Your task to perform on an android device: change text size in settings app Image 0: 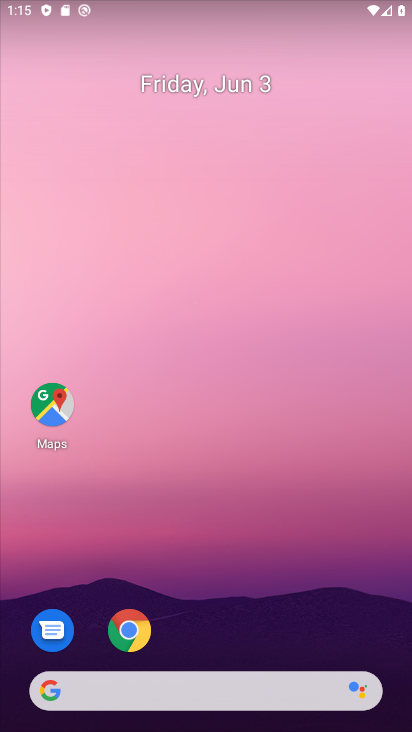
Step 0: drag from (236, 650) to (207, 124)
Your task to perform on an android device: change text size in settings app Image 1: 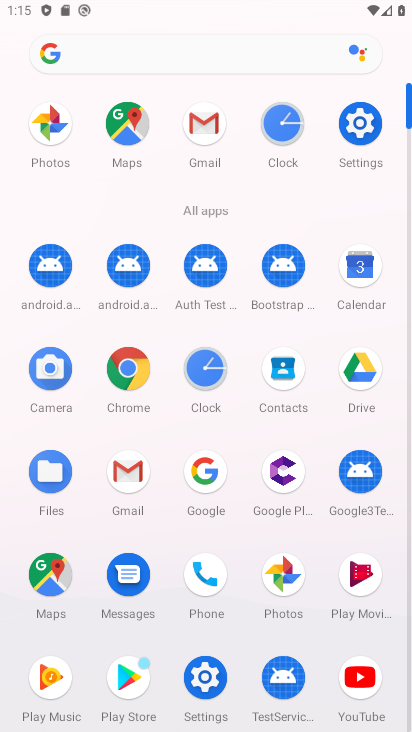
Step 1: click (355, 131)
Your task to perform on an android device: change text size in settings app Image 2: 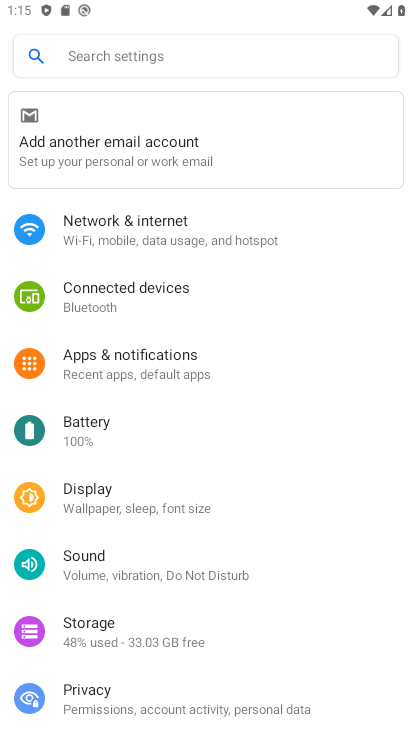
Step 2: click (224, 510)
Your task to perform on an android device: change text size in settings app Image 3: 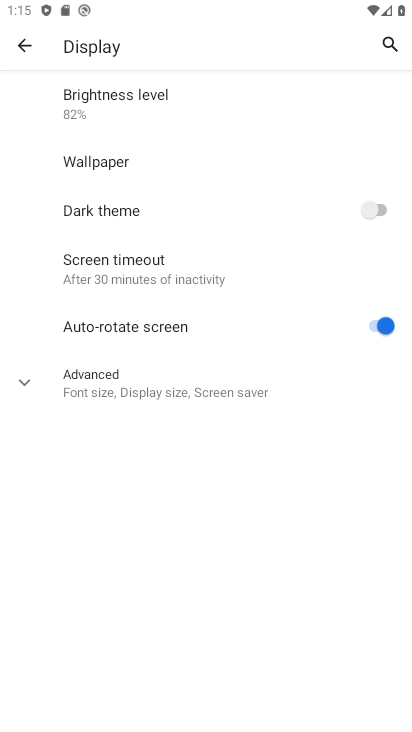
Step 3: click (210, 380)
Your task to perform on an android device: change text size in settings app Image 4: 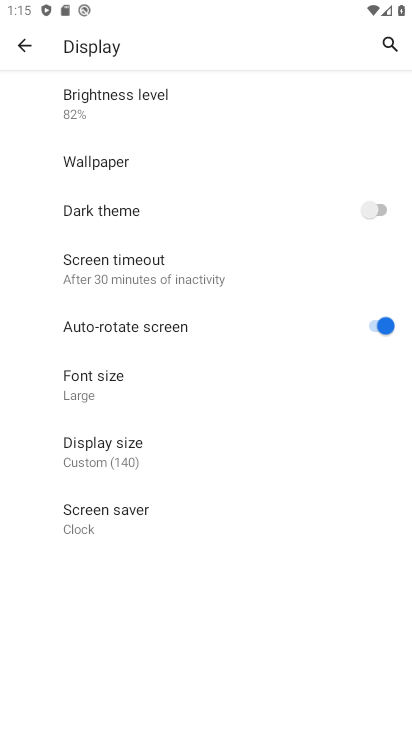
Step 4: click (197, 402)
Your task to perform on an android device: change text size in settings app Image 5: 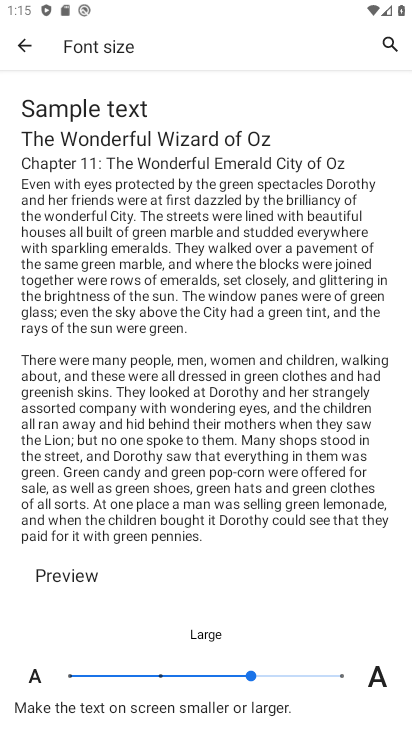
Step 5: click (184, 677)
Your task to perform on an android device: change text size in settings app Image 6: 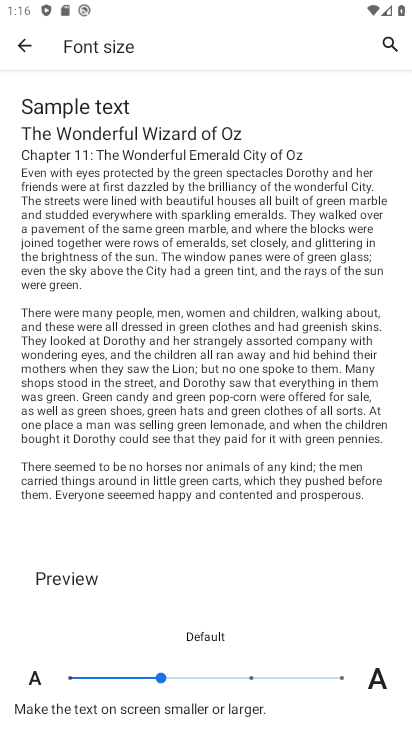
Step 6: task complete